Your task to perform on an android device: Show the shopping cart on costco. Add lenovo thinkpad to the cart on costco, then select checkout. Image 0: 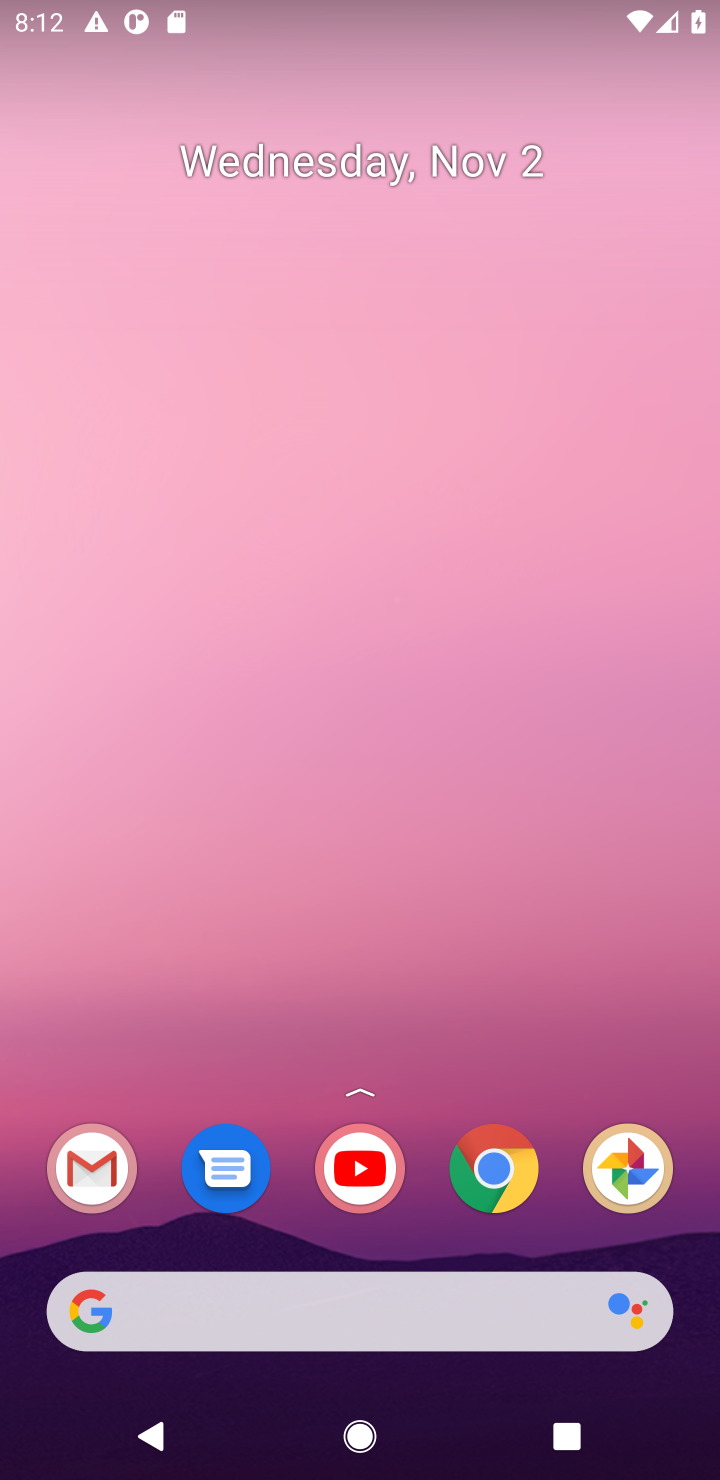
Step 0: click (497, 1172)
Your task to perform on an android device: Show the shopping cart on costco. Add lenovo thinkpad to the cart on costco, then select checkout. Image 1: 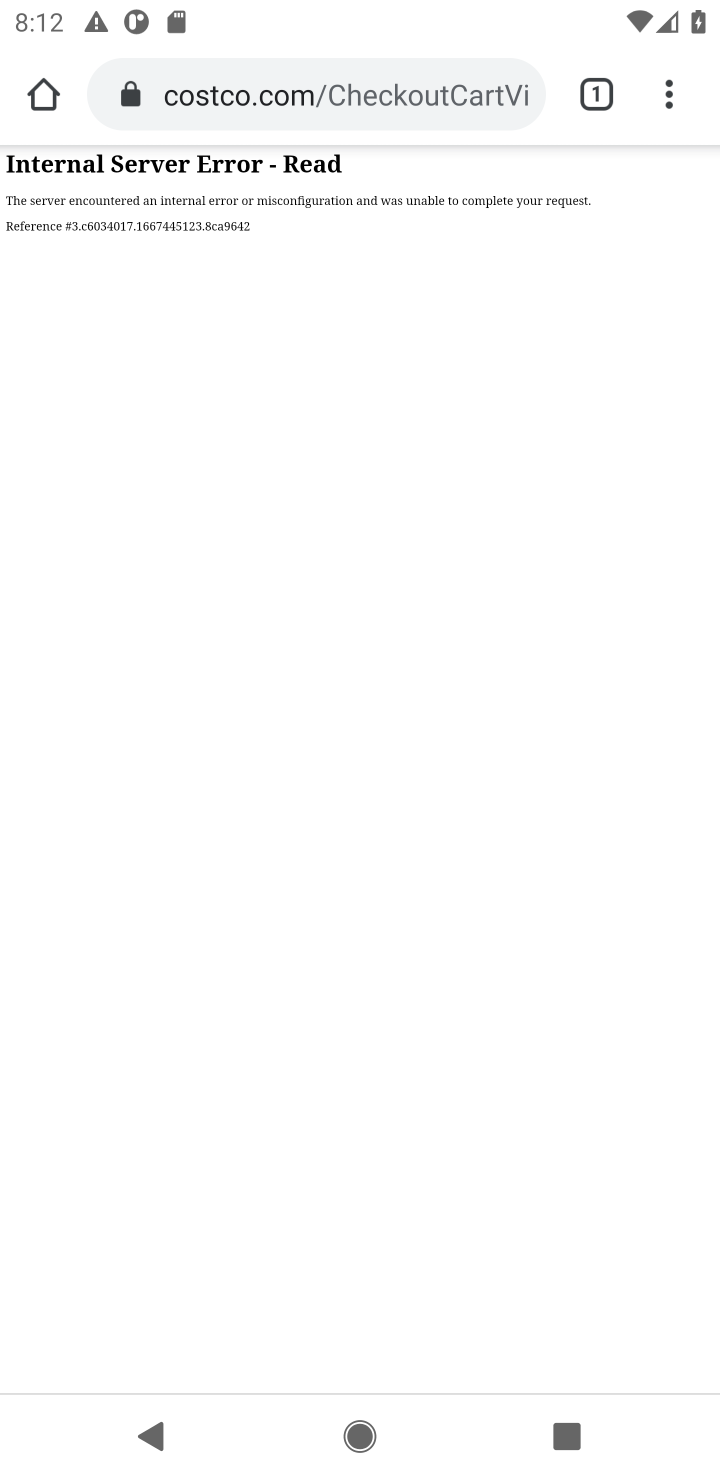
Step 1: click (429, 86)
Your task to perform on an android device: Show the shopping cart on costco. Add lenovo thinkpad to the cart on costco, then select checkout. Image 2: 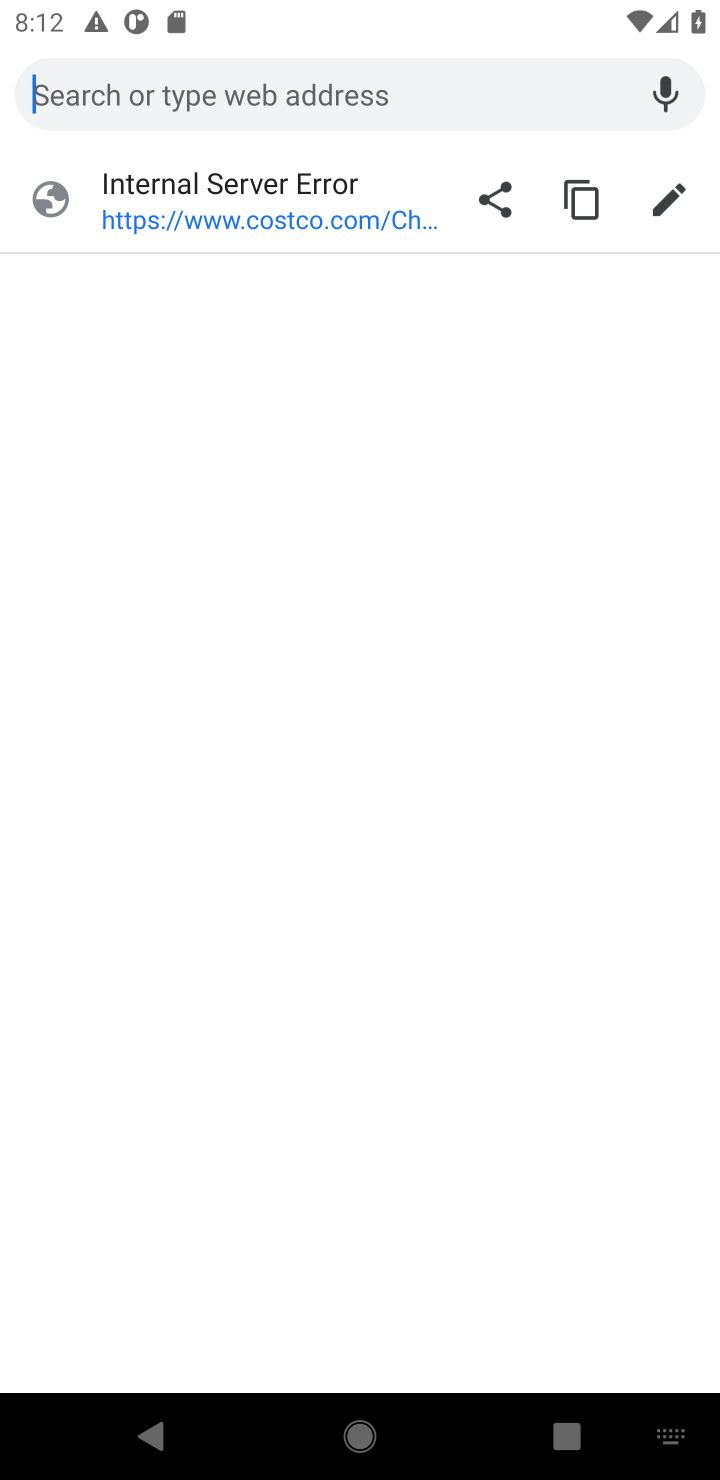
Step 2: type "costco"
Your task to perform on an android device: Show the shopping cart on costco. Add lenovo thinkpad to the cart on costco, then select checkout. Image 3: 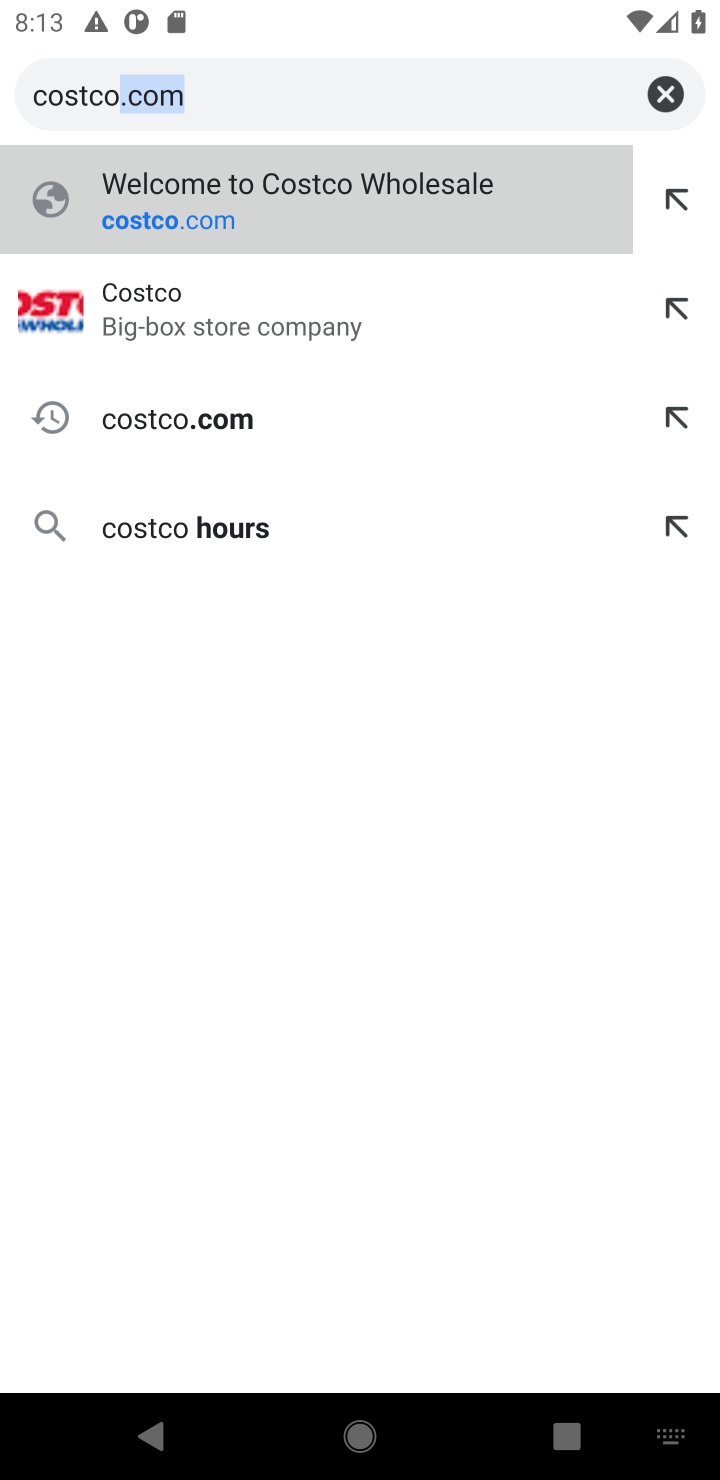
Step 3: click (283, 319)
Your task to perform on an android device: Show the shopping cart on costco. Add lenovo thinkpad to the cart on costco, then select checkout. Image 4: 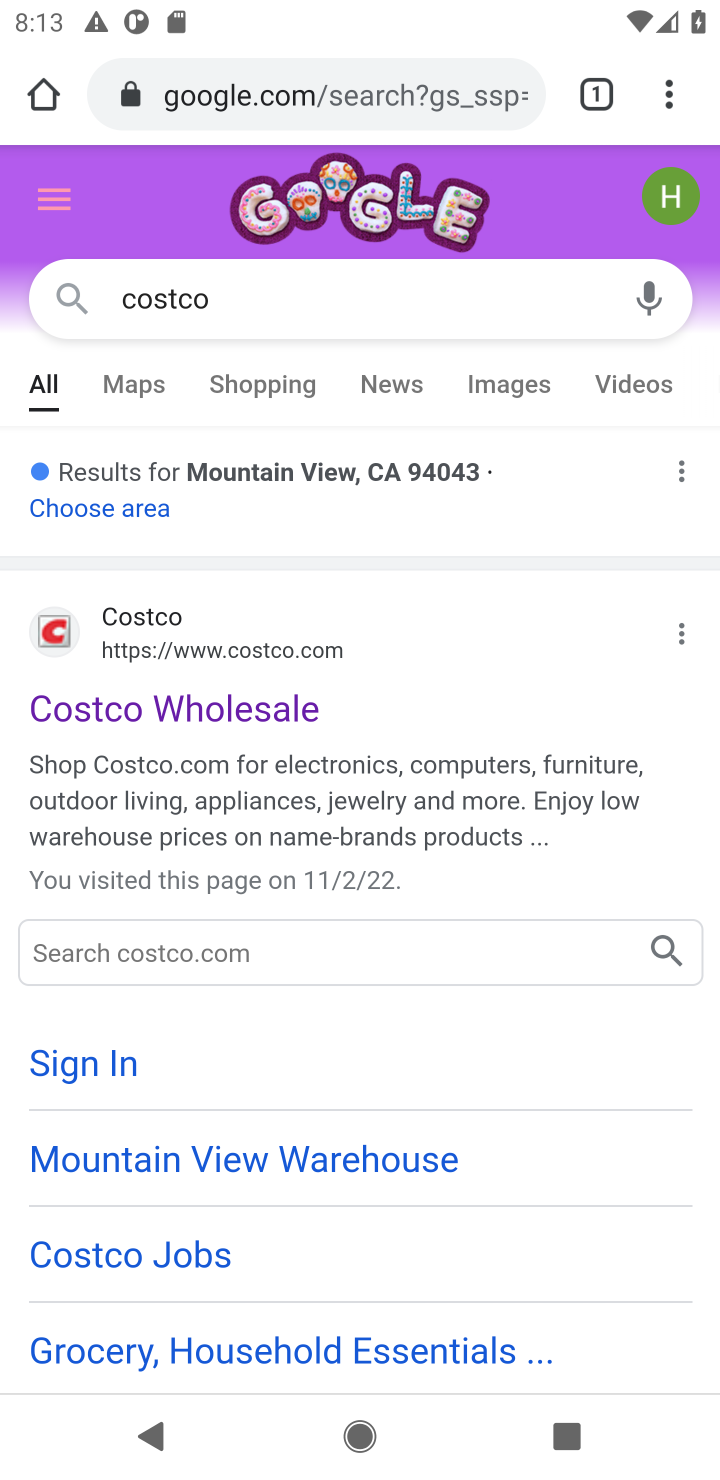
Step 4: click (261, 713)
Your task to perform on an android device: Show the shopping cart on costco. Add lenovo thinkpad to the cart on costco, then select checkout. Image 5: 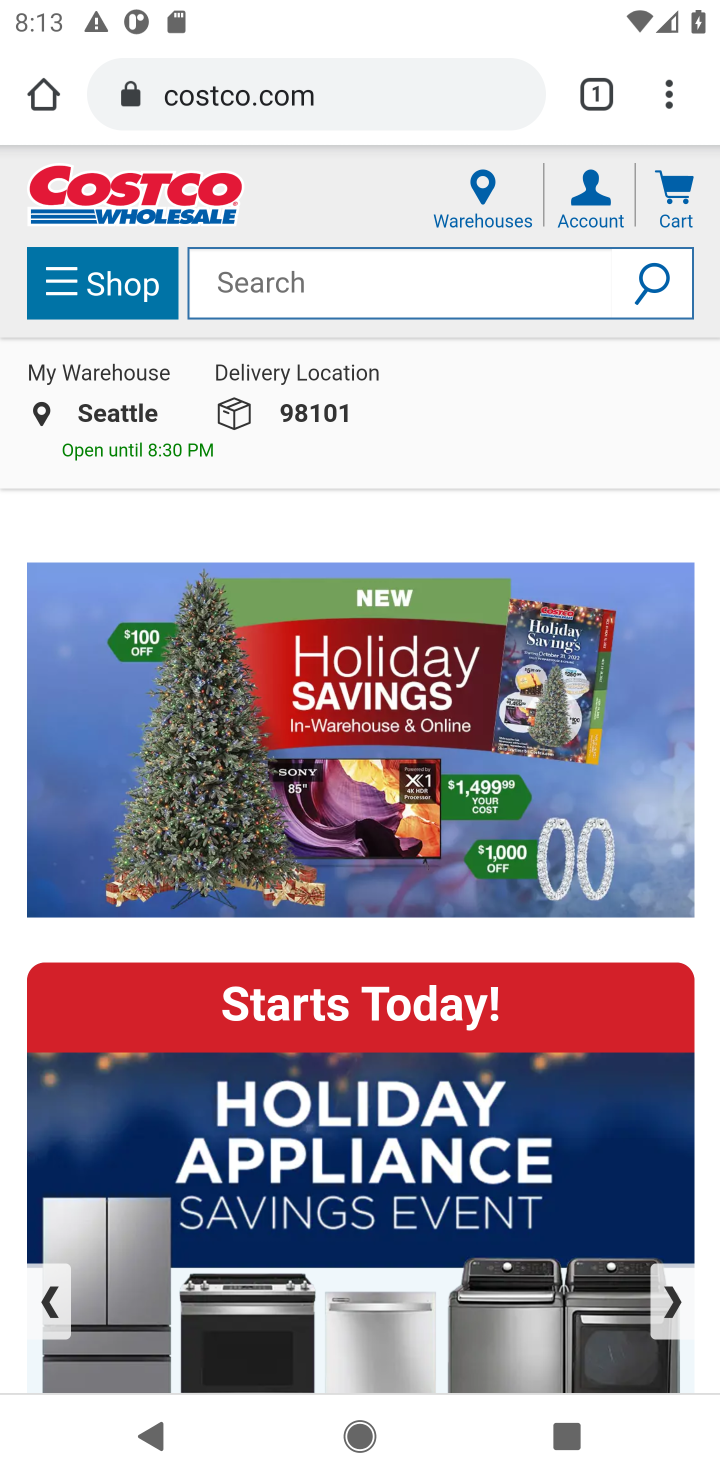
Step 5: click (679, 191)
Your task to perform on an android device: Show the shopping cart on costco. Add lenovo thinkpad to the cart on costco, then select checkout. Image 6: 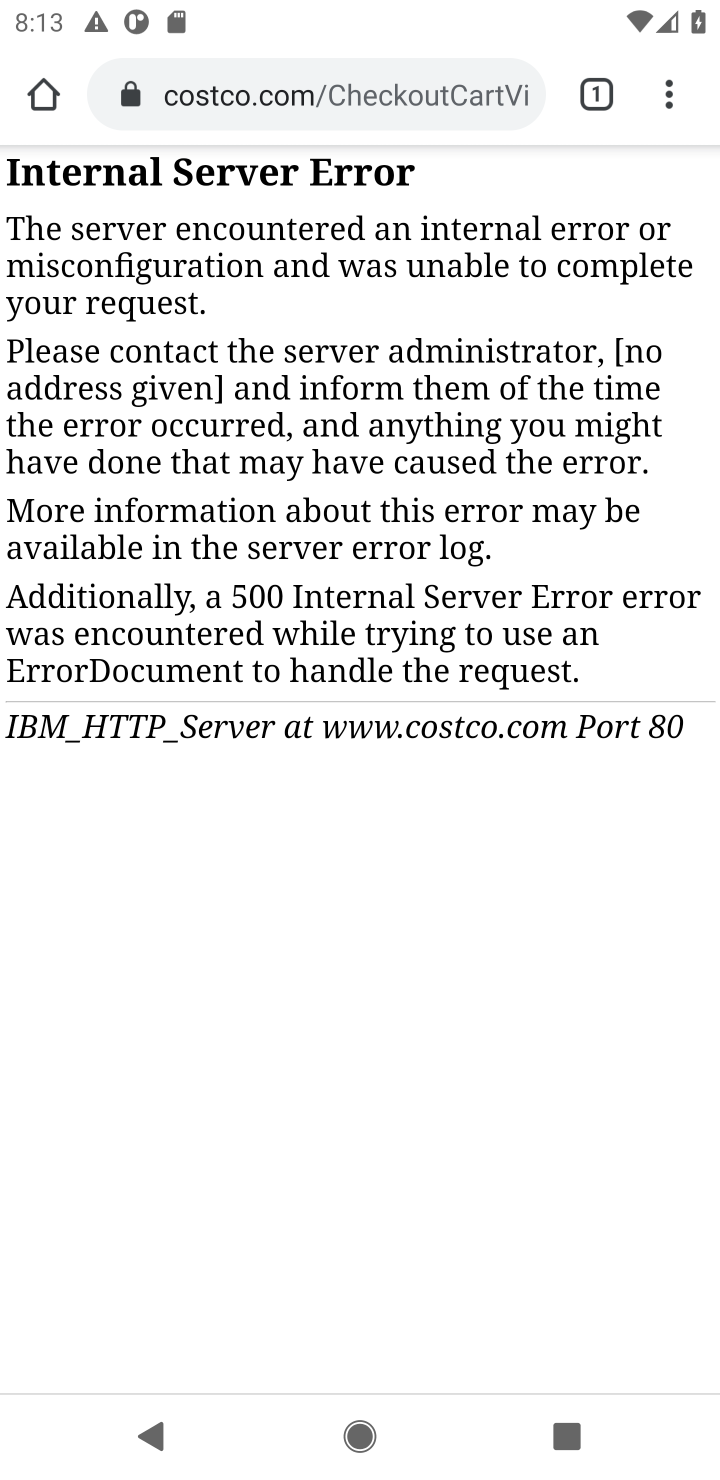
Step 6: task complete